Your task to perform on an android device: turn on location history Image 0: 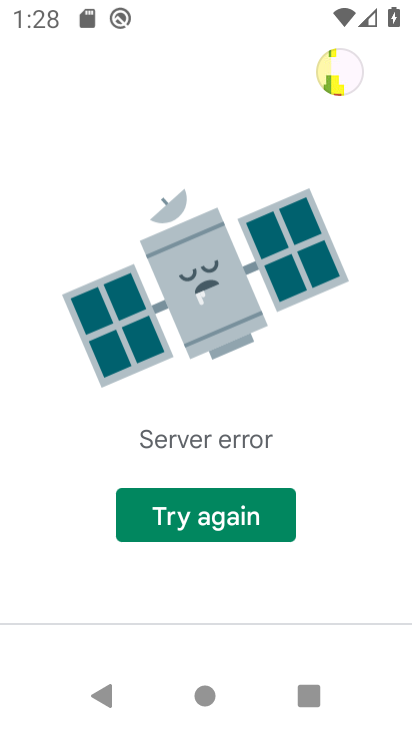
Step 0: press home button
Your task to perform on an android device: turn on location history Image 1: 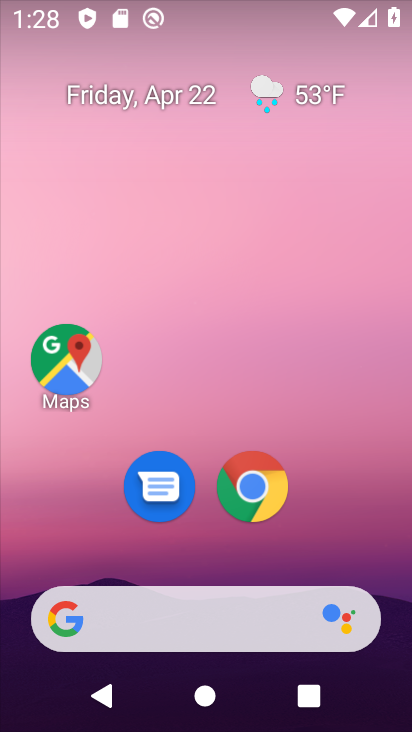
Step 1: drag from (179, 566) to (245, 64)
Your task to perform on an android device: turn on location history Image 2: 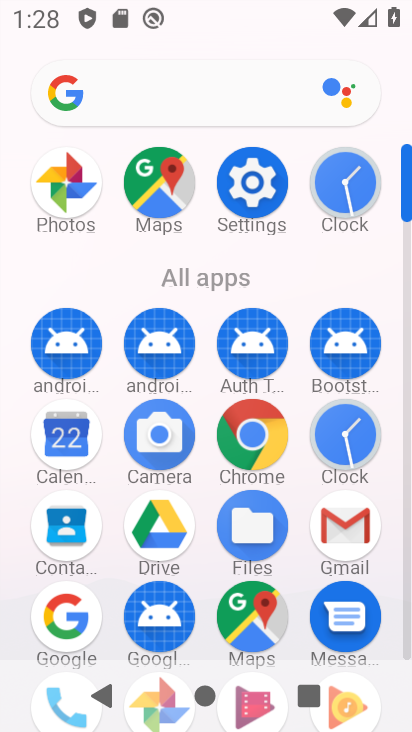
Step 2: click (256, 206)
Your task to perform on an android device: turn on location history Image 3: 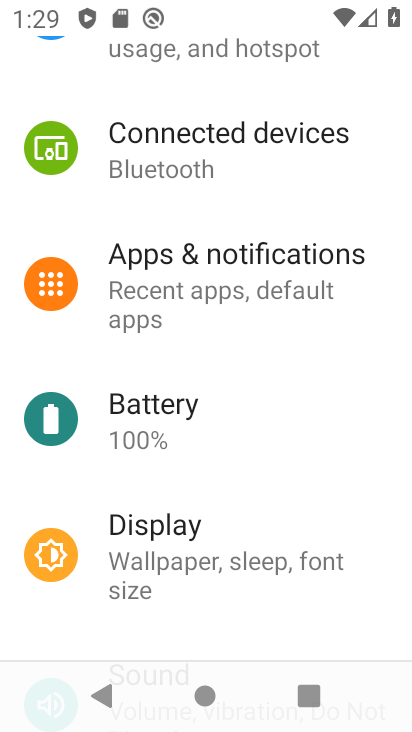
Step 3: drag from (262, 536) to (276, 46)
Your task to perform on an android device: turn on location history Image 4: 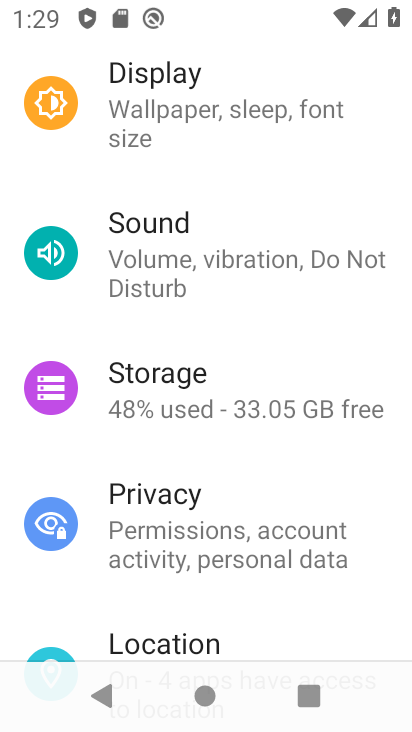
Step 4: click (138, 624)
Your task to perform on an android device: turn on location history Image 5: 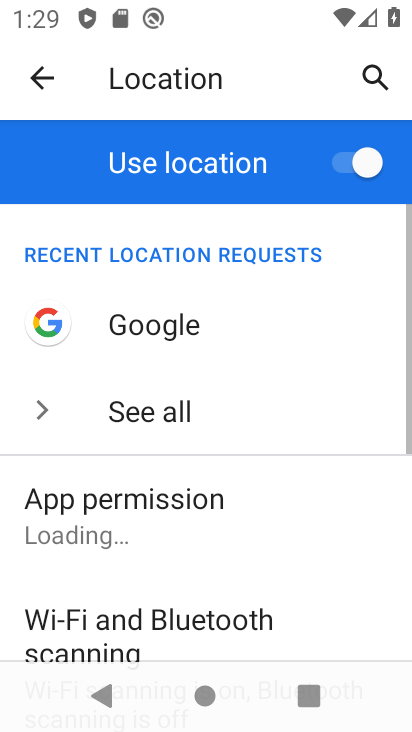
Step 5: drag from (147, 580) to (163, 192)
Your task to perform on an android device: turn on location history Image 6: 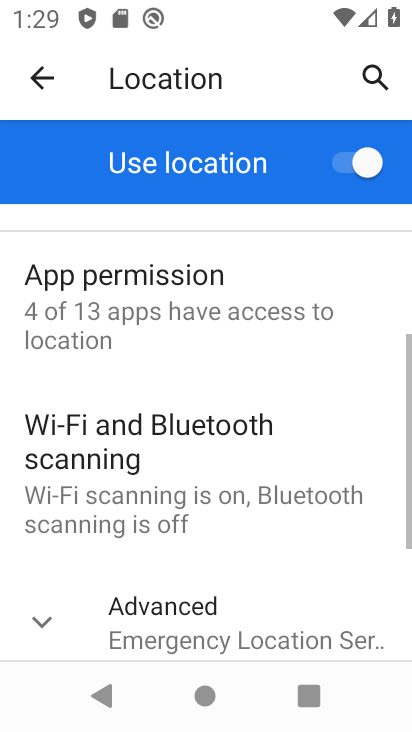
Step 6: click (174, 577)
Your task to perform on an android device: turn on location history Image 7: 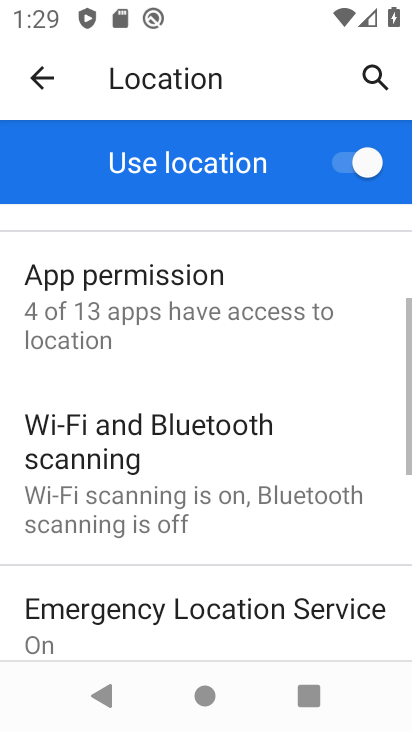
Step 7: drag from (179, 625) to (256, 46)
Your task to perform on an android device: turn on location history Image 8: 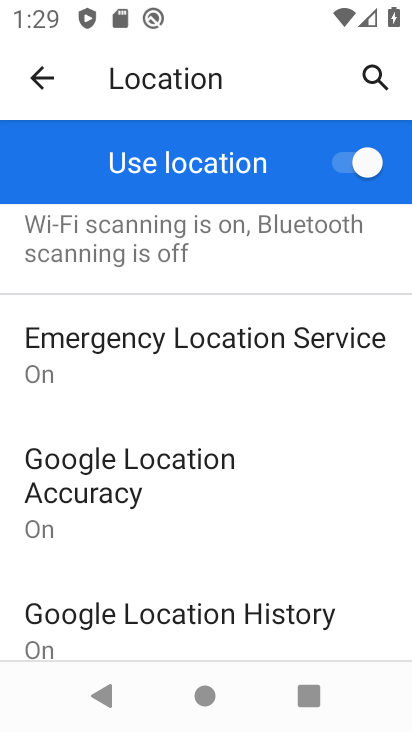
Step 8: click (104, 626)
Your task to perform on an android device: turn on location history Image 9: 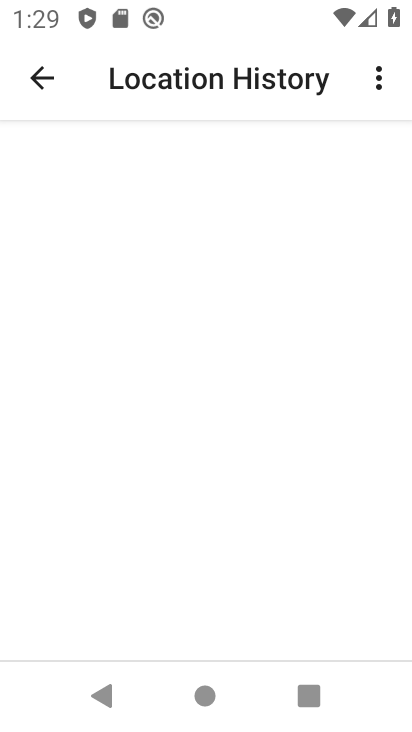
Step 9: task complete